Your task to perform on an android device: Search for flights from Mexico city to Zurich Image 0: 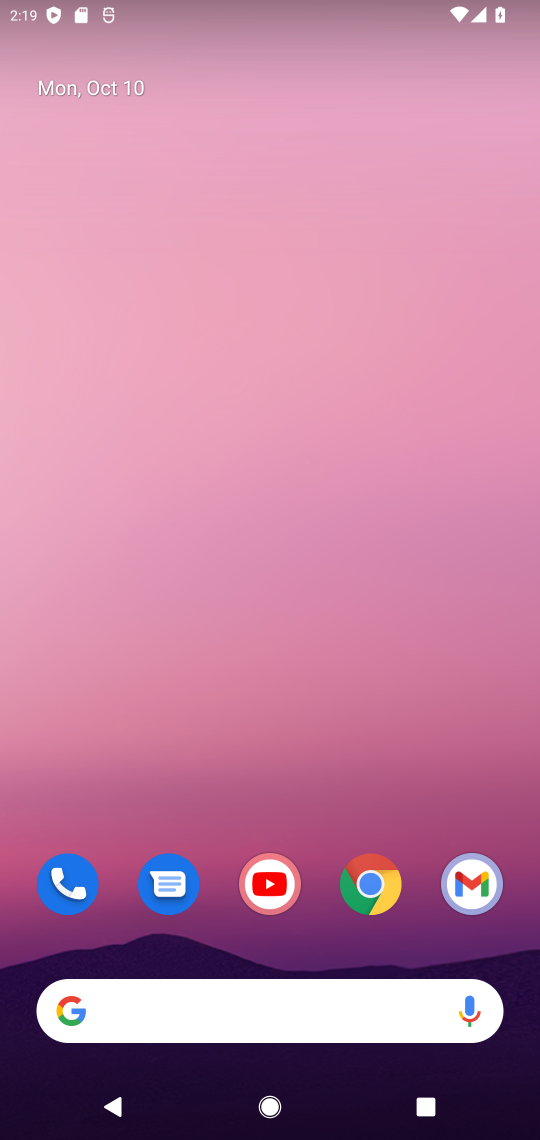
Step 0: click (296, 996)
Your task to perform on an android device: Search for flights from Mexico city to Zurich Image 1: 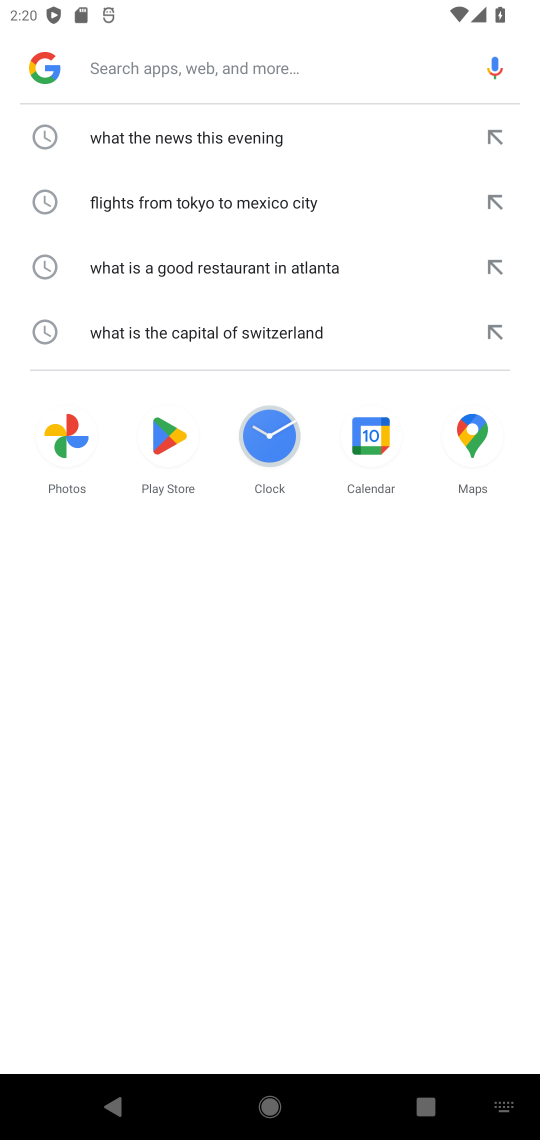
Step 1: type "flights from Mexico city to Zurich"
Your task to perform on an android device: Search for flights from Mexico city to Zurich Image 2: 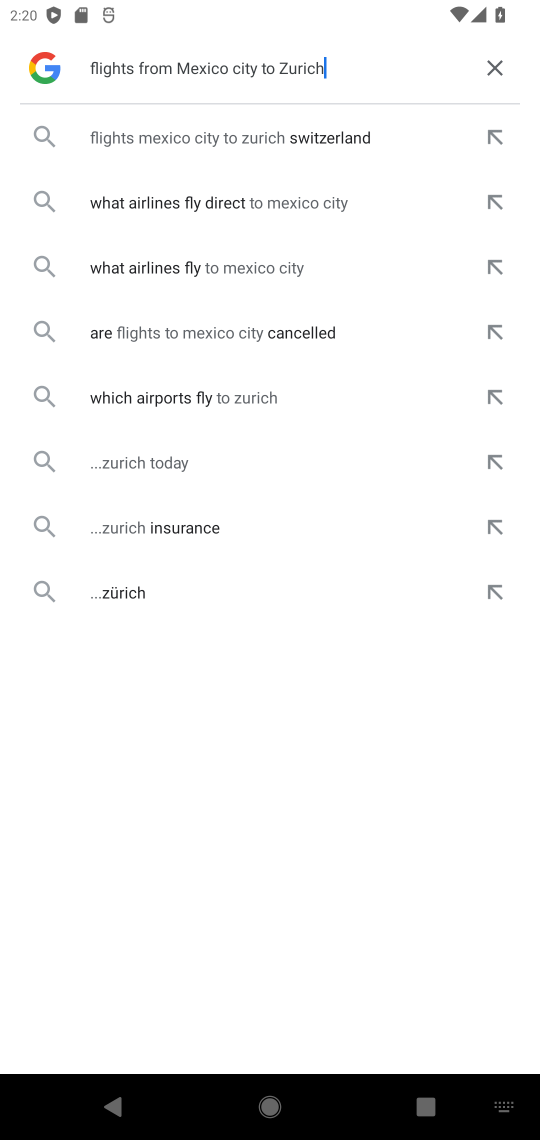
Step 2: click (249, 137)
Your task to perform on an android device: Search for flights from Mexico city to Zurich Image 3: 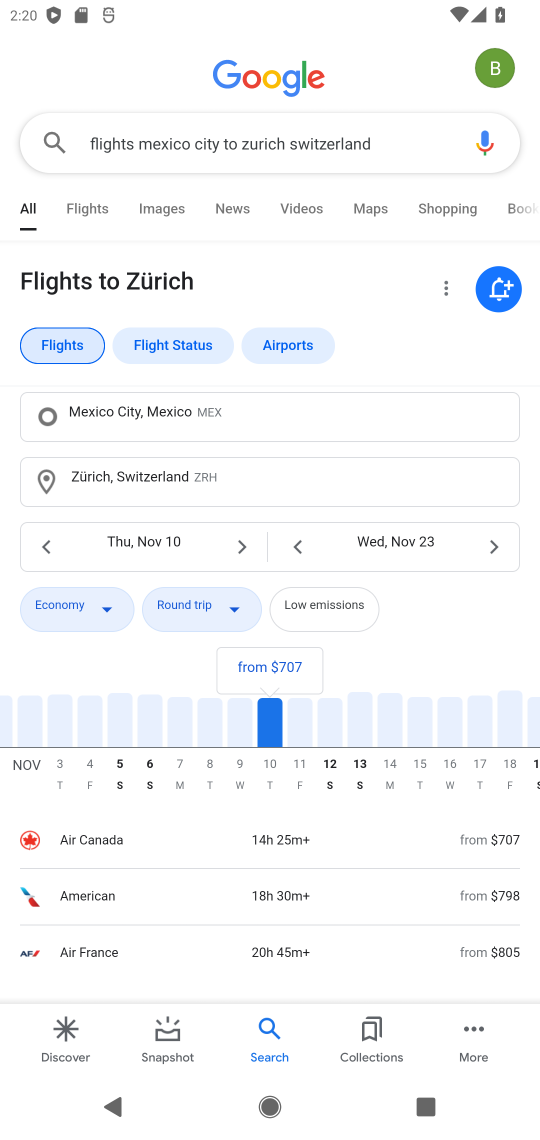
Step 3: task complete